Your task to perform on an android device: What is the recent news? Image 0: 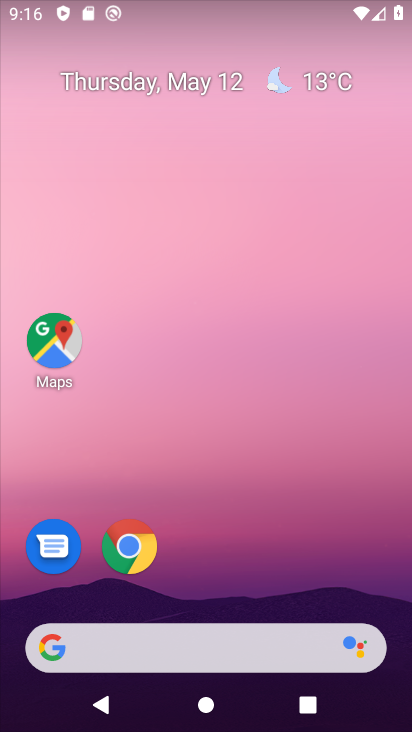
Step 0: drag from (27, 248) to (399, 273)
Your task to perform on an android device: What is the recent news? Image 1: 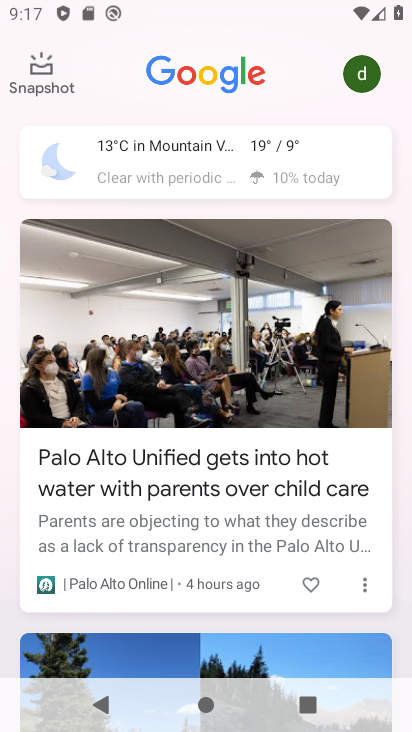
Step 1: task complete